Your task to perform on an android device: Search for Italian restaurants on Maps Image 0: 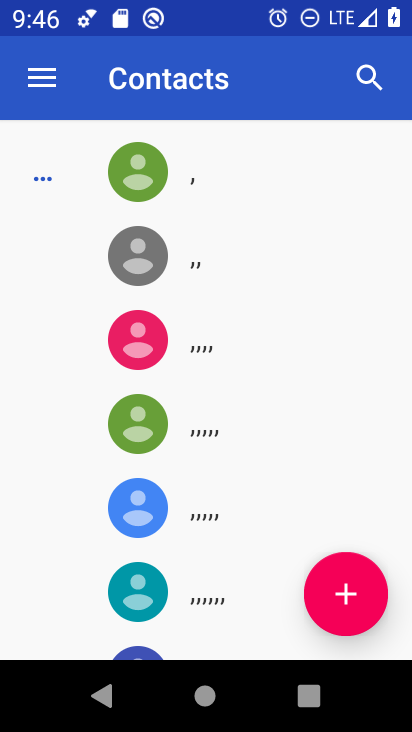
Step 0: press home button
Your task to perform on an android device: Search for Italian restaurants on Maps Image 1: 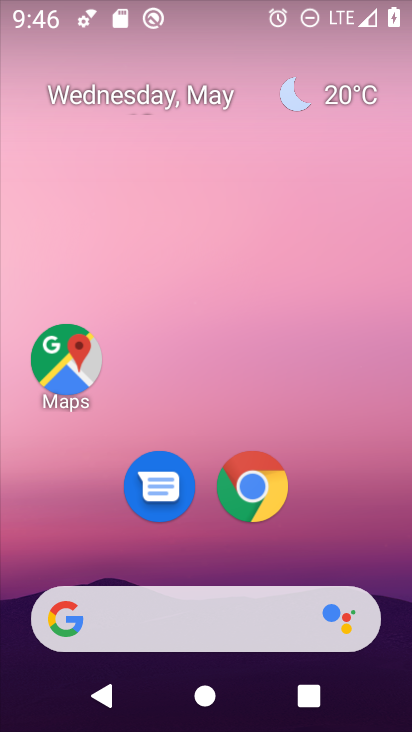
Step 1: click (63, 354)
Your task to perform on an android device: Search for Italian restaurants on Maps Image 2: 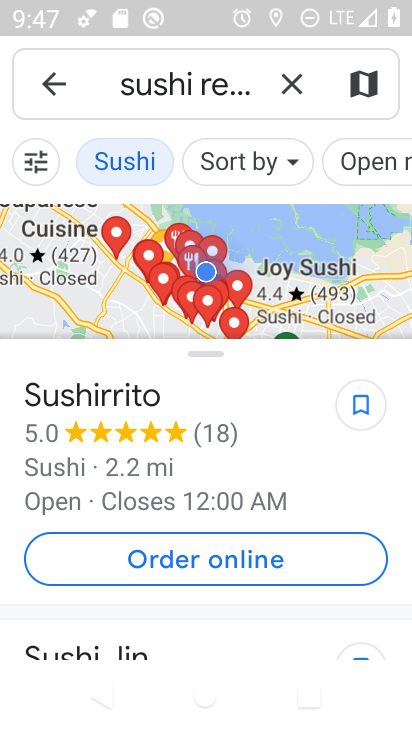
Step 2: click (286, 81)
Your task to perform on an android device: Search for Italian restaurants on Maps Image 3: 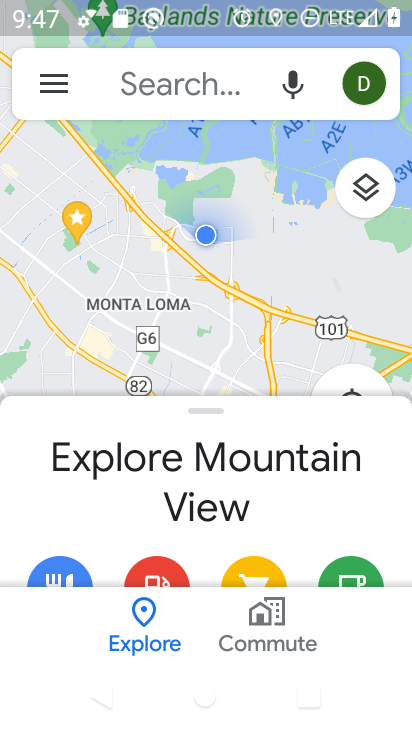
Step 3: click (178, 83)
Your task to perform on an android device: Search for Italian restaurants on Maps Image 4: 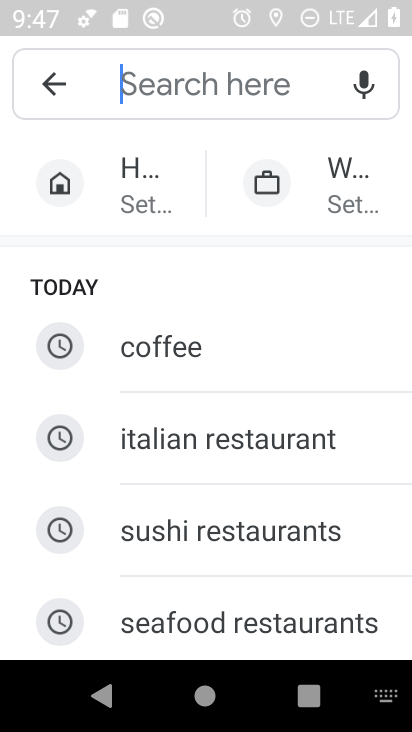
Step 4: type "italian restaurants"
Your task to perform on an android device: Search for Italian restaurants on Maps Image 5: 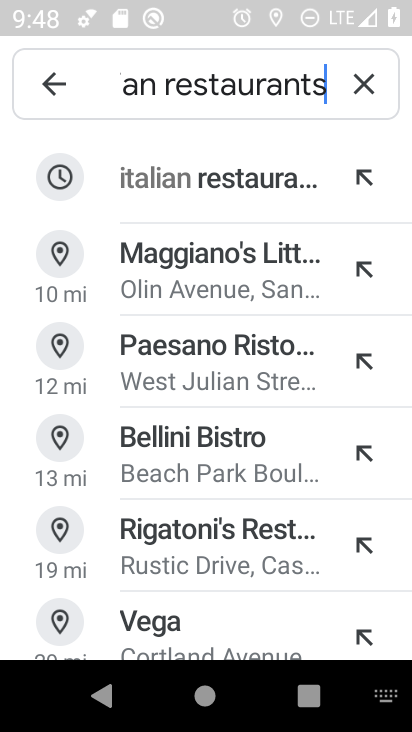
Step 5: click (181, 167)
Your task to perform on an android device: Search for Italian restaurants on Maps Image 6: 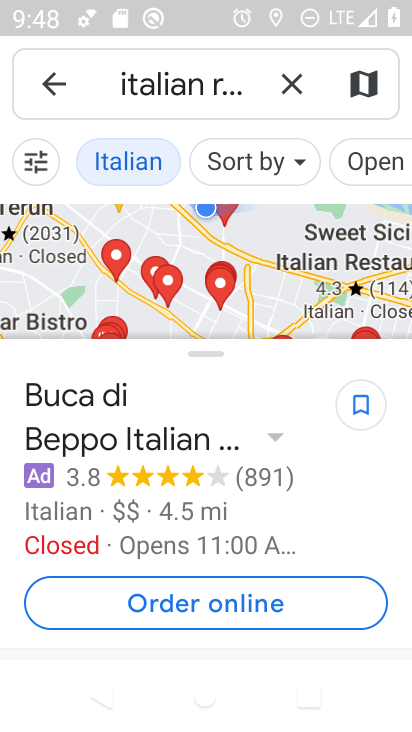
Step 6: task complete